Your task to perform on an android device: Open ESPN.com Image 0: 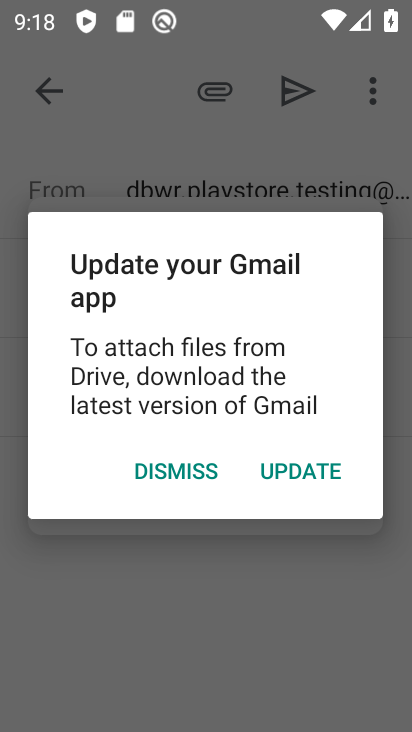
Step 0: press home button
Your task to perform on an android device: Open ESPN.com Image 1: 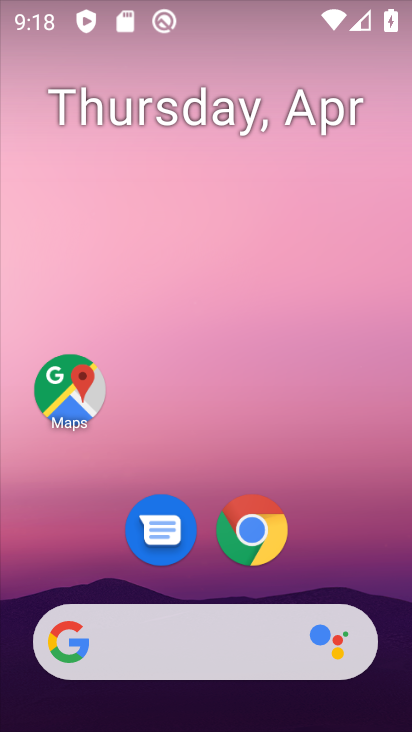
Step 1: drag from (341, 482) to (301, 27)
Your task to perform on an android device: Open ESPN.com Image 2: 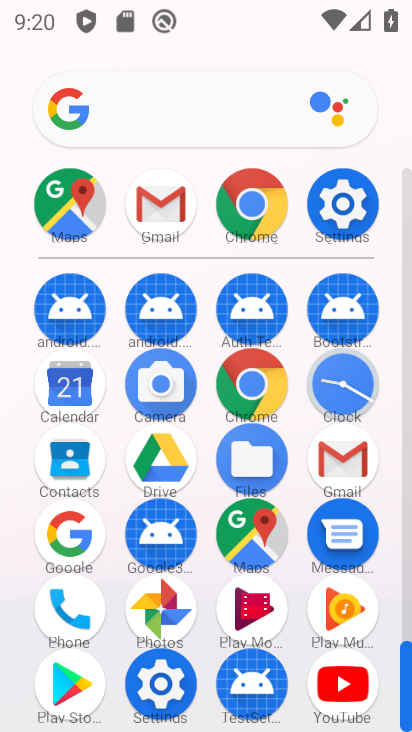
Step 2: click (256, 391)
Your task to perform on an android device: Open ESPN.com Image 3: 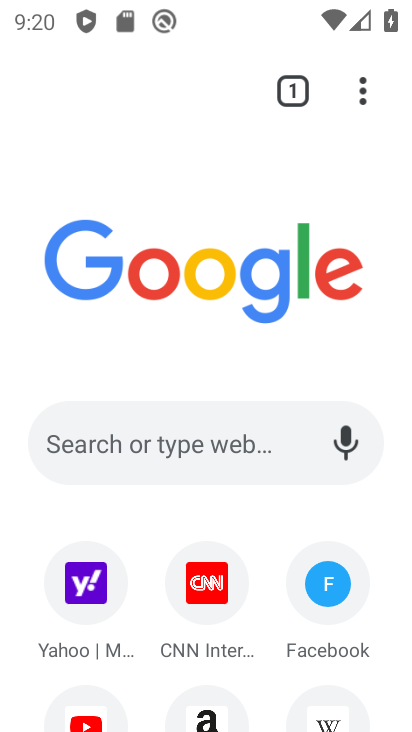
Step 3: drag from (163, 675) to (161, 326)
Your task to perform on an android device: Open ESPN.com Image 4: 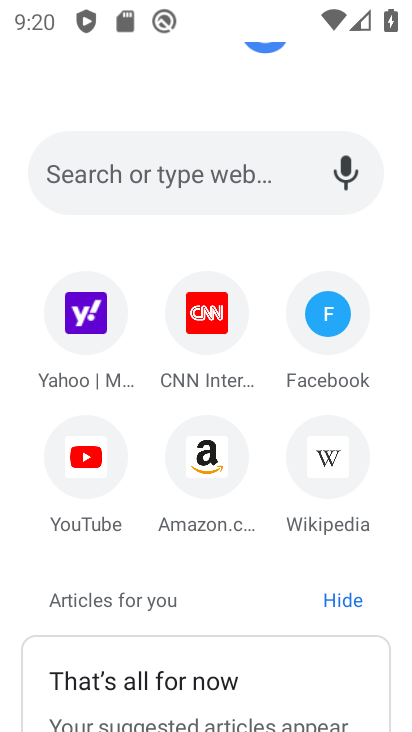
Step 4: drag from (161, 326) to (161, 674)
Your task to perform on an android device: Open ESPN.com Image 5: 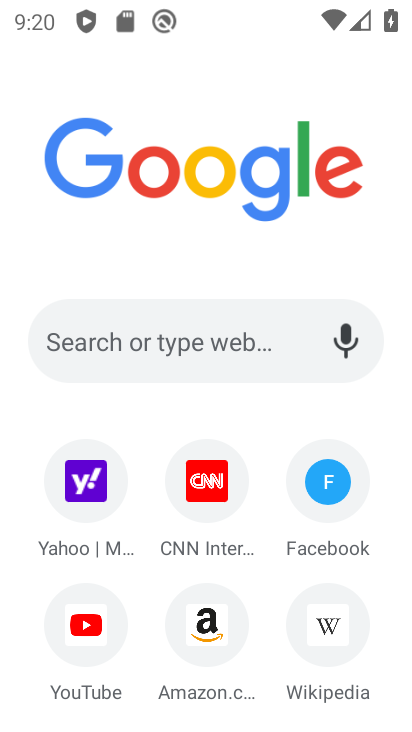
Step 5: click (182, 403)
Your task to perform on an android device: Open ESPN.com Image 6: 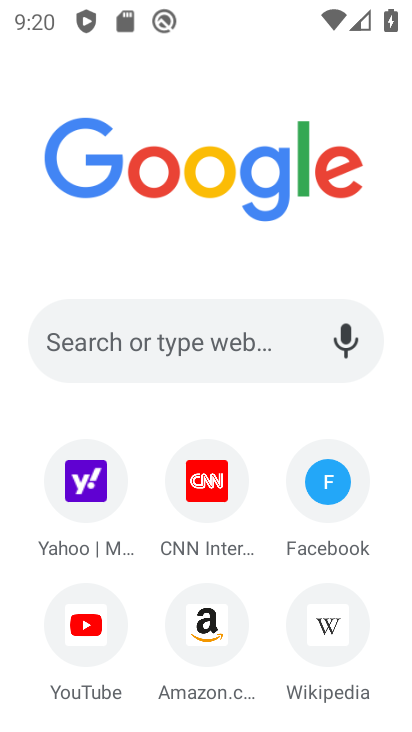
Step 6: click (186, 357)
Your task to perform on an android device: Open ESPN.com Image 7: 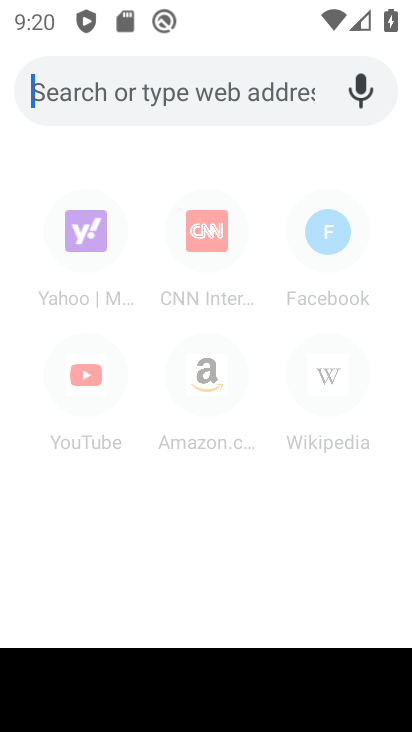
Step 7: type "espn.com"
Your task to perform on an android device: Open ESPN.com Image 8: 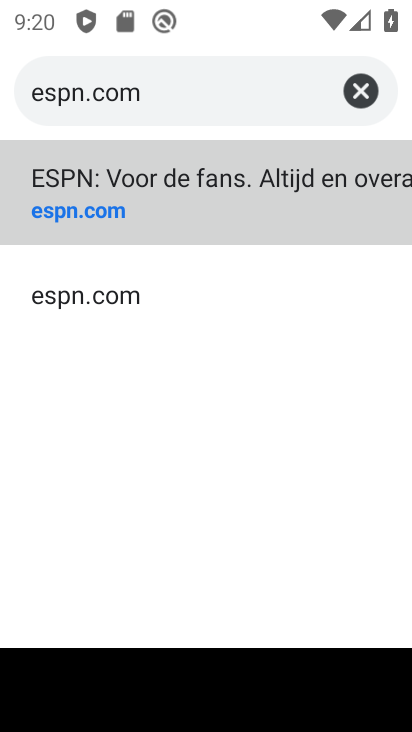
Step 8: click (268, 197)
Your task to perform on an android device: Open ESPN.com Image 9: 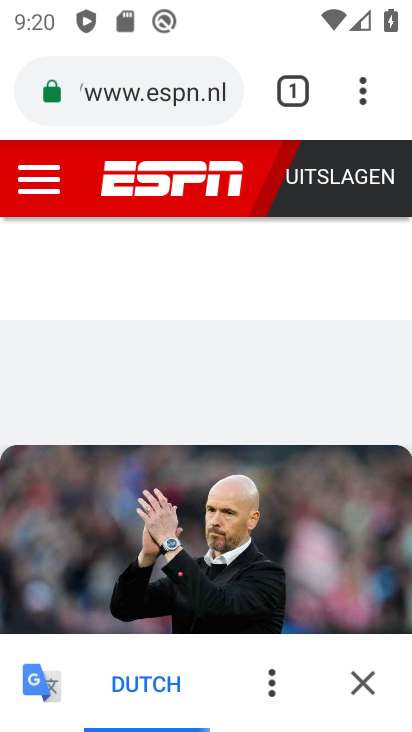
Step 9: task complete